Your task to perform on an android device: Open accessibility settings Image 0: 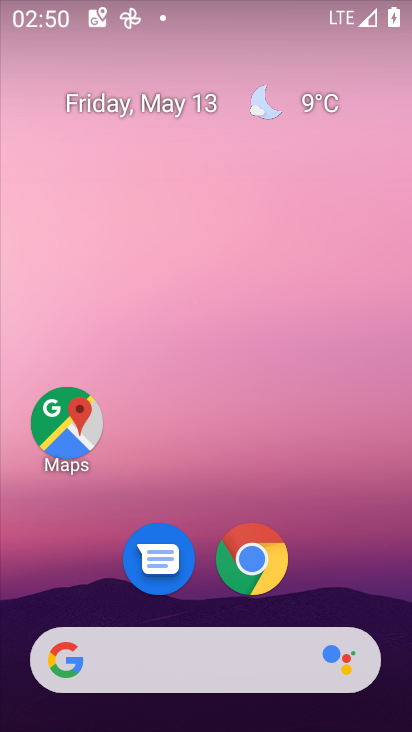
Step 0: drag from (396, 597) to (373, 216)
Your task to perform on an android device: Open accessibility settings Image 1: 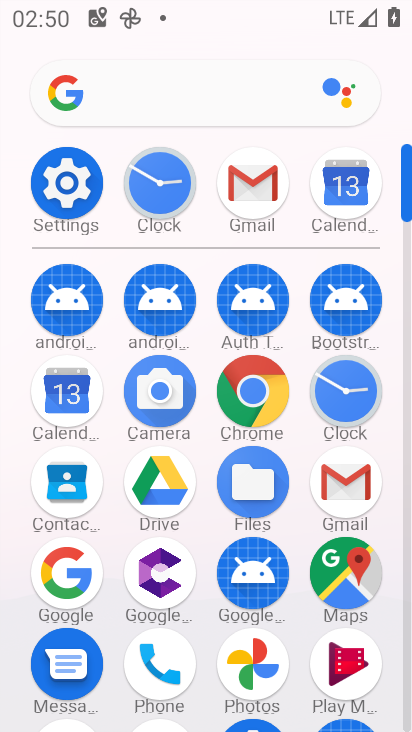
Step 1: click (67, 183)
Your task to perform on an android device: Open accessibility settings Image 2: 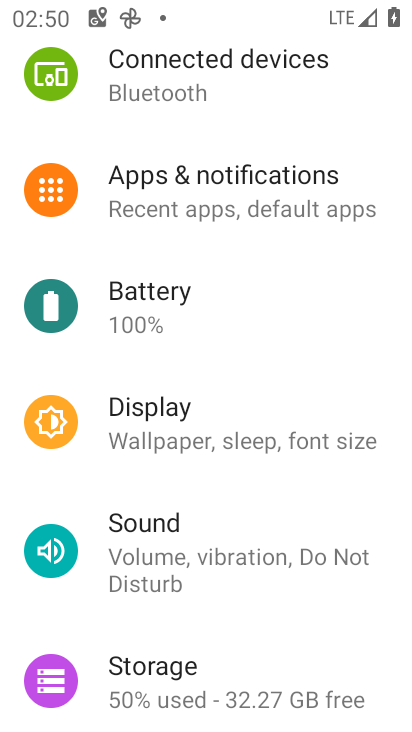
Step 2: drag from (401, 647) to (405, 426)
Your task to perform on an android device: Open accessibility settings Image 3: 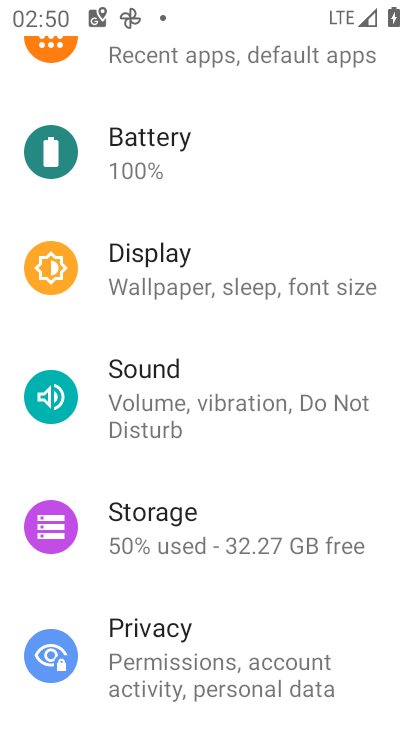
Step 3: drag from (369, 604) to (355, 414)
Your task to perform on an android device: Open accessibility settings Image 4: 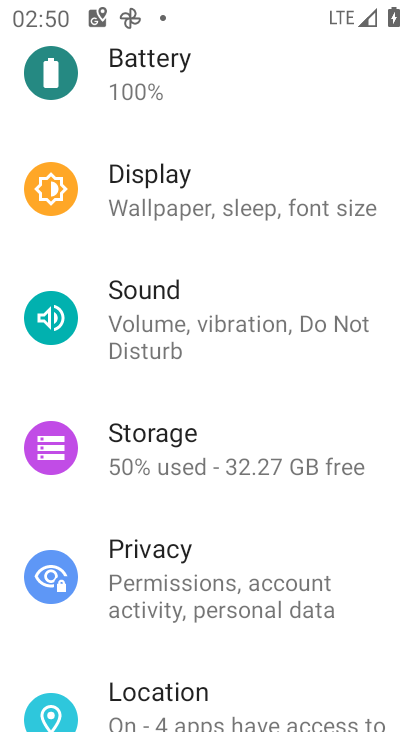
Step 4: drag from (367, 552) to (349, 399)
Your task to perform on an android device: Open accessibility settings Image 5: 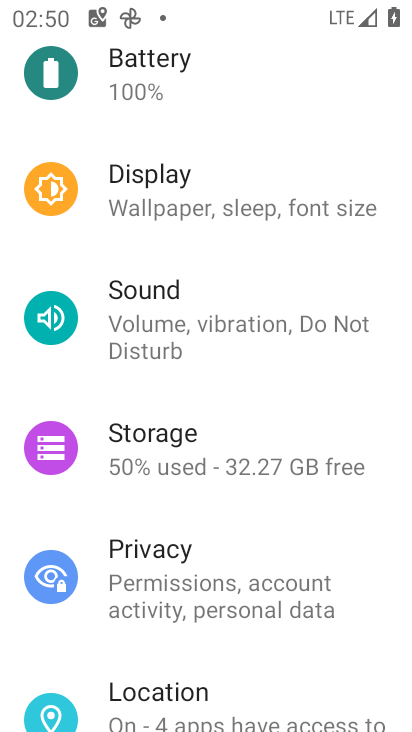
Step 5: drag from (374, 683) to (362, 359)
Your task to perform on an android device: Open accessibility settings Image 6: 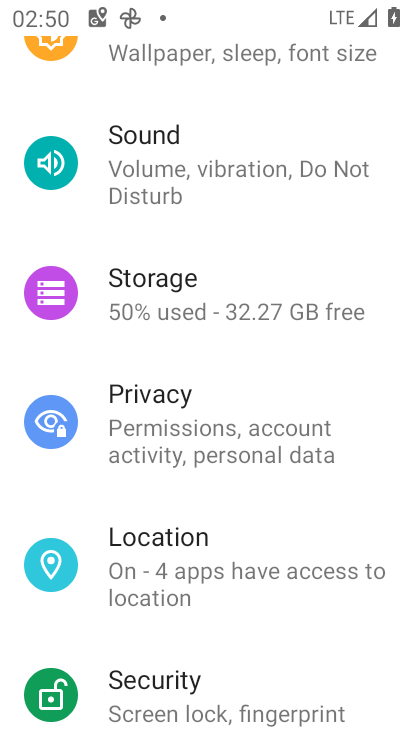
Step 6: drag from (381, 682) to (386, 424)
Your task to perform on an android device: Open accessibility settings Image 7: 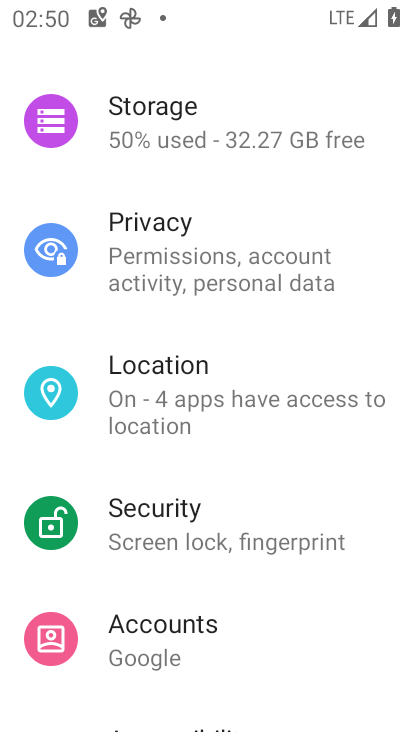
Step 7: drag from (352, 685) to (332, 390)
Your task to perform on an android device: Open accessibility settings Image 8: 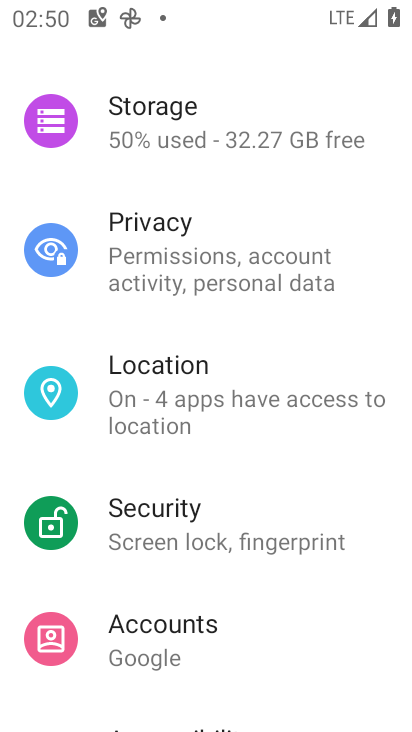
Step 8: drag from (324, 688) to (351, 262)
Your task to perform on an android device: Open accessibility settings Image 9: 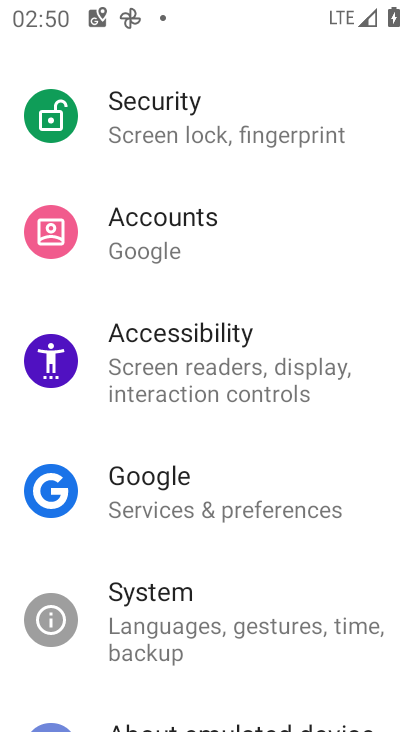
Step 9: drag from (333, 677) to (342, 370)
Your task to perform on an android device: Open accessibility settings Image 10: 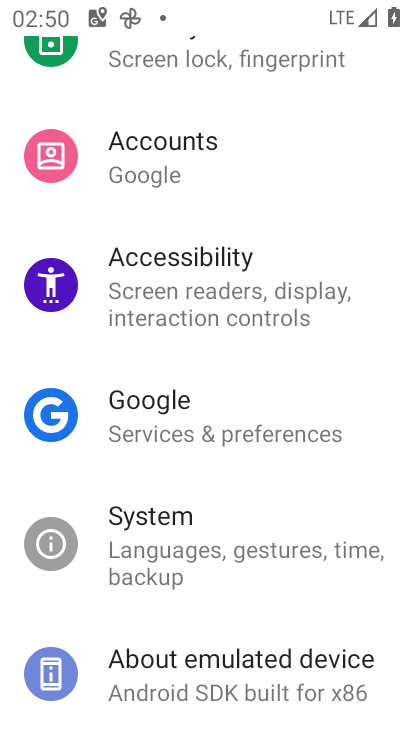
Step 10: click (201, 249)
Your task to perform on an android device: Open accessibility settings Image 11: 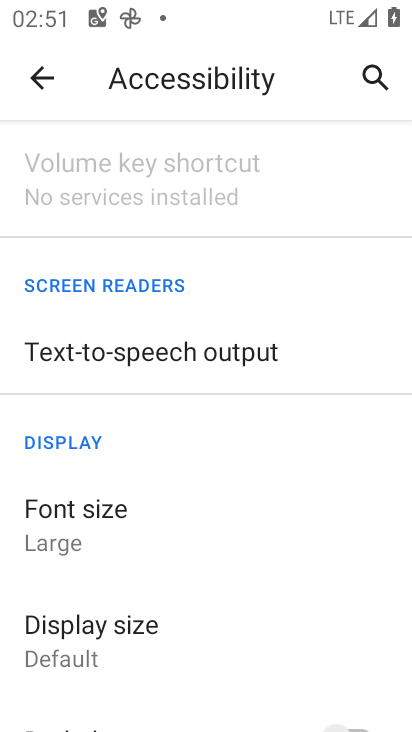
Step 11: task complete